Your task to perform on an android device: Is it going to rain today? Image 0: 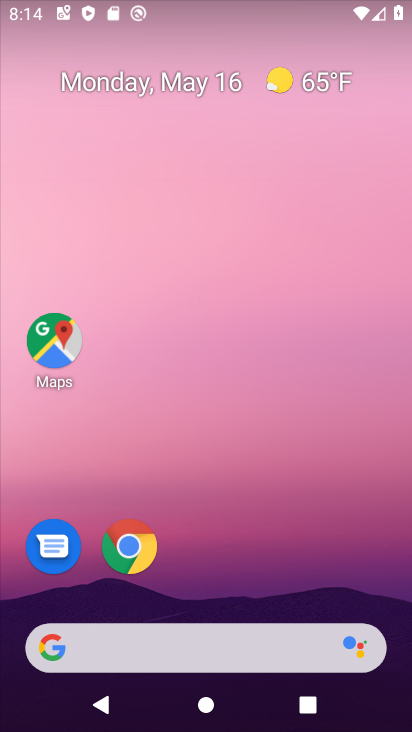
Step 0: click (242, 643)
Your task to perform on an android device: Is it going to rain today? Image 1: 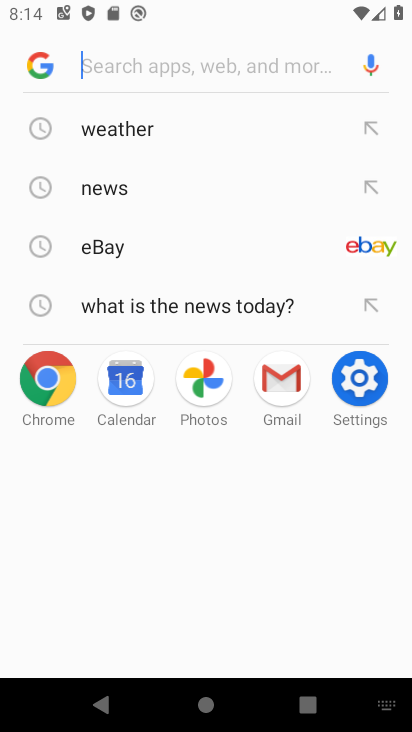
Step 1: click (101, 128)
Your task to perform on an android device: Is it going to rain today? Image 2: 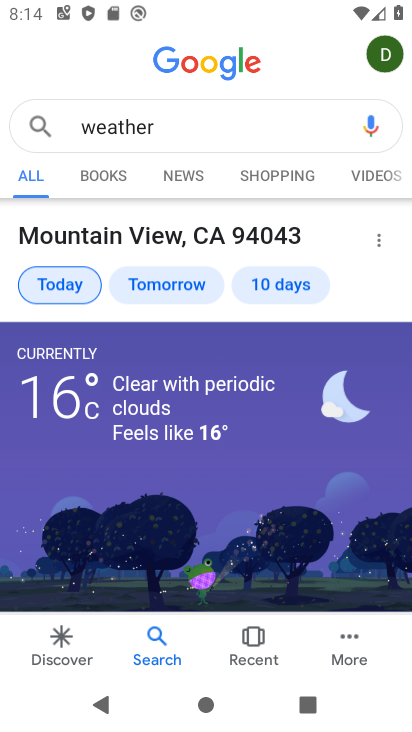
Step 2: task complete